Your task to perform on an android device: turn on javascript in the chrome app Image 0: 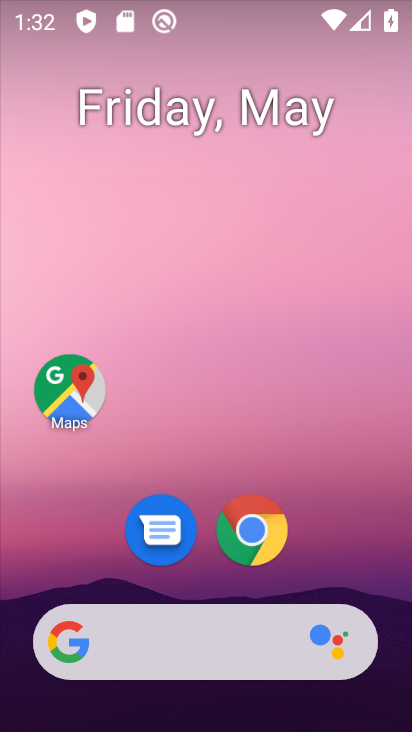
Step 0: click (255, 533)
Your task to perform on an android device: turn on javascript in the chrome app Image 1: 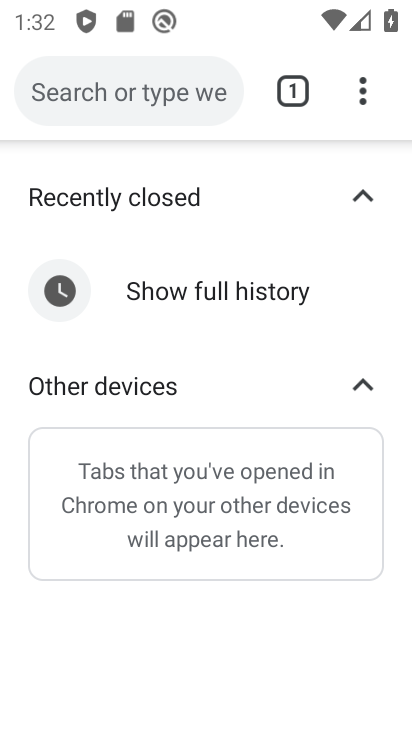
Step 1: click (362, 97)
Your task to perform on an android device: turn on javascript in the chrome app Image 2: 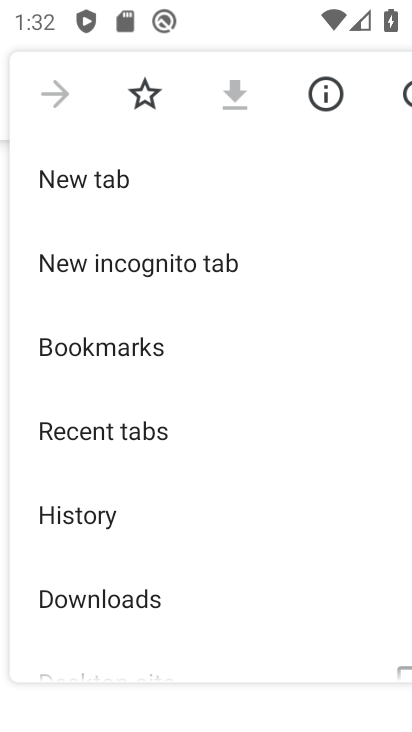
Step 2: drag from (87, 362) to (86, 257)
Your task to perform on an android device: turn on javascript in the chrome app Image 3: 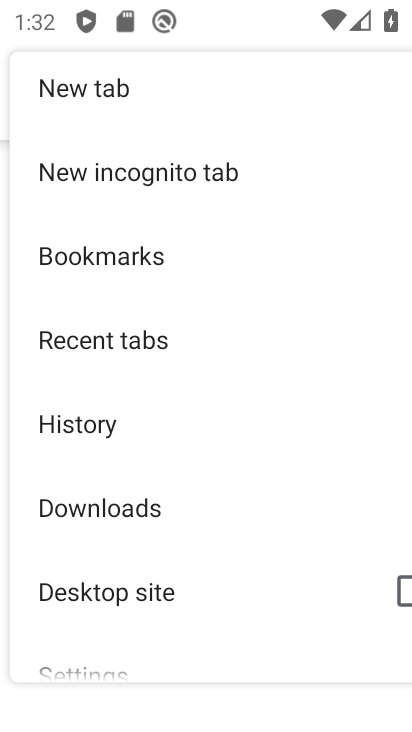
Step 3: drag from (103, 642) to (71, 246)
Your task to perform on an android device: turn on javascript in the chrome app Image 4: 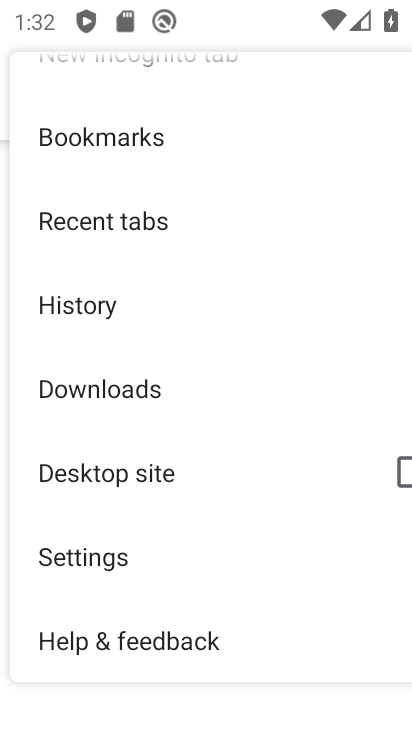
Step 4: click (71, 556)
Your task to perform on an android device: turn on javascript in the chrome app Image 5: 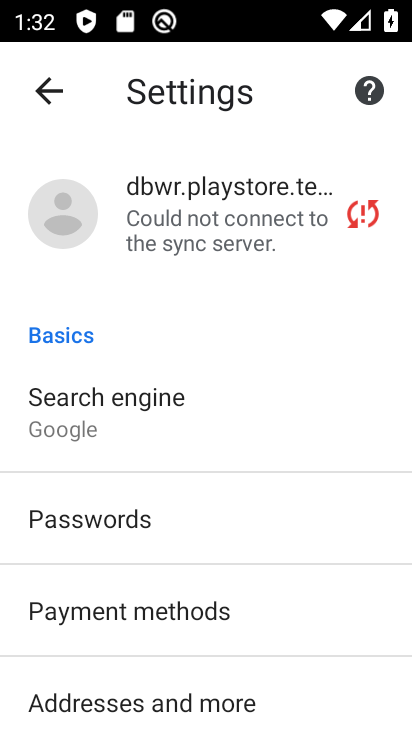
Step 5: drag from (165, 652) to (106, 229)
Your task to perform on an android device: turn on javascript in the chrome app Image 6: 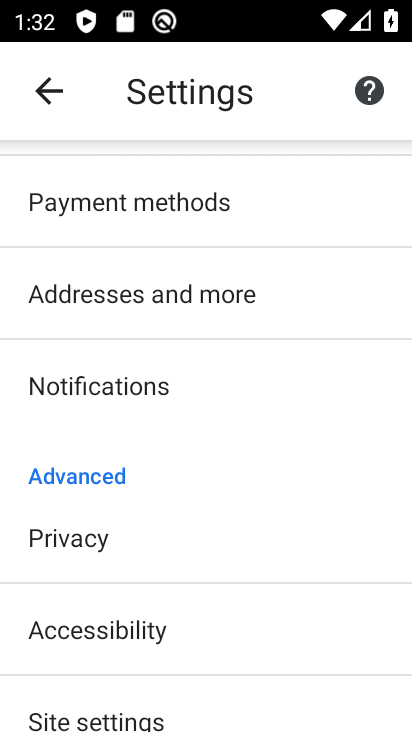
Step 6: click (131, 698)
Your task to perform on an android device: turn on javascript in the chrome app Image 7: 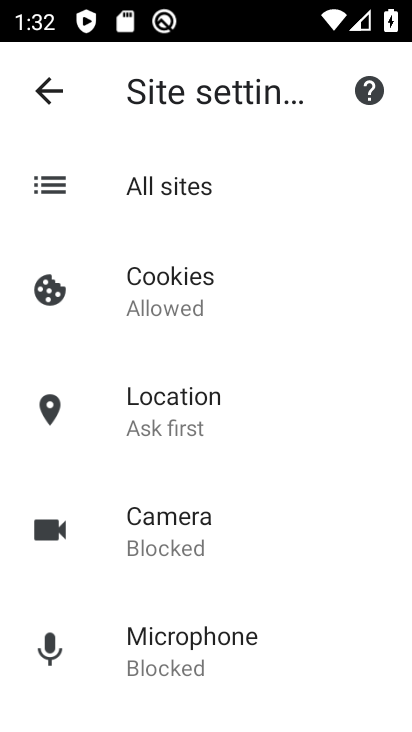
Step 7: drag from (159, 671) to (99, 171)
Your task to perform on an android device: turn on javascript in the chrome app Image 8: 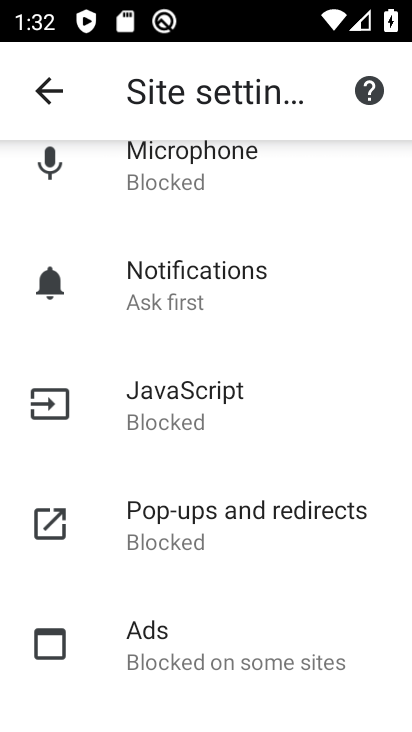
Step 8: click (175, 395)
Your task to perform on an android device: turn on javascript in the chrome app Image 9: 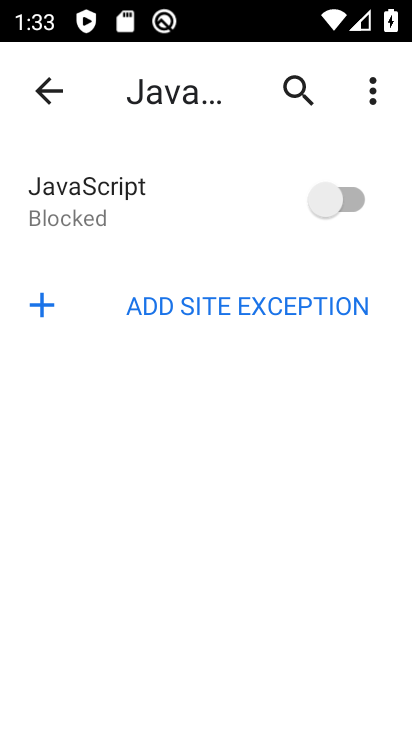
Step 9: click (337, 201)
Your task to perform on an android device: turn on javascript in the chrome app Image 10: 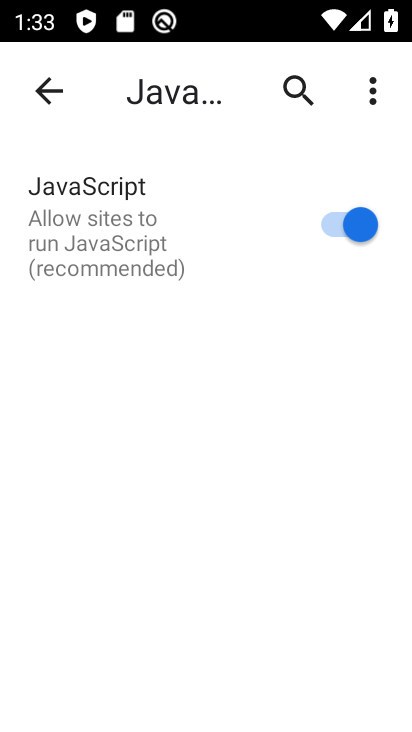
Step 10: task complete